Your task to perform on an android device: Open notification settings Image 0: 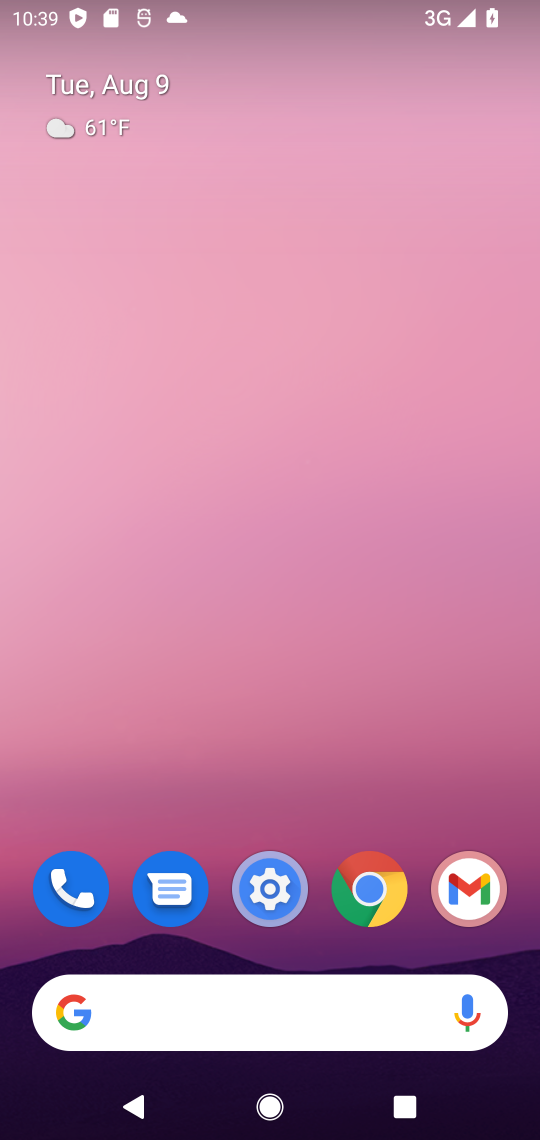
Step 0: drag from (269, 977) to (267, 219)
Your task to perform on an android device: Open notification settings Image 1: 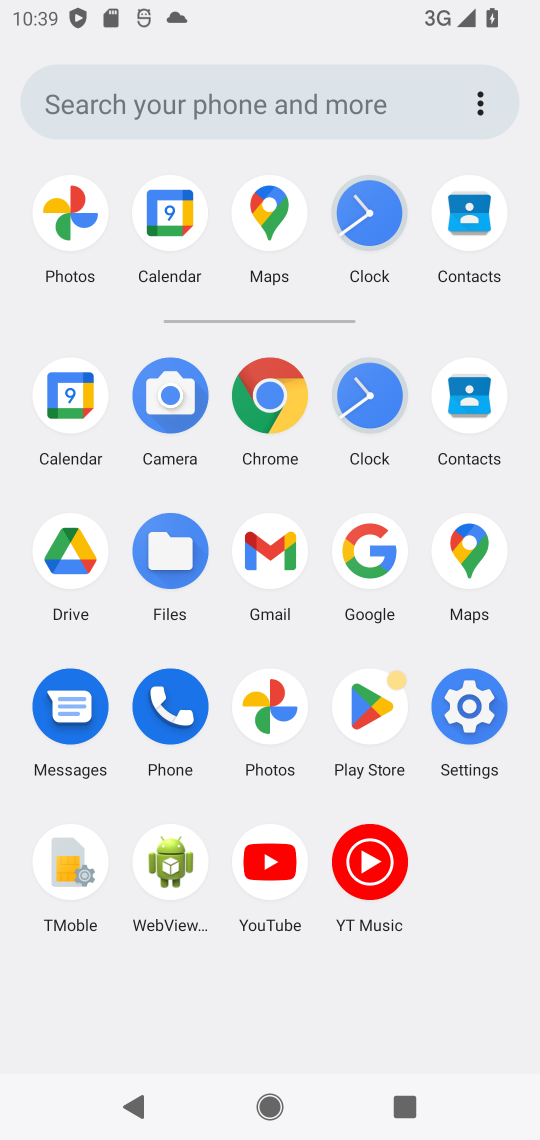
Step 1: click (474, 724)
Your task to perform on an android device: Open notification settings Image 2: 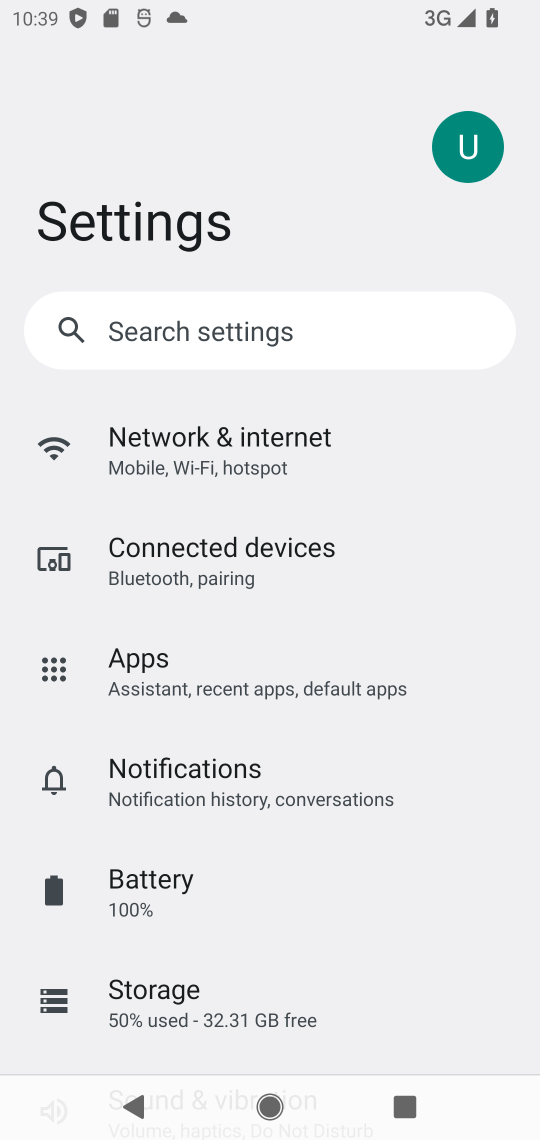
Step 2: click (253, 778)
Your task to perform on an android device: Open notification settings Image 3: 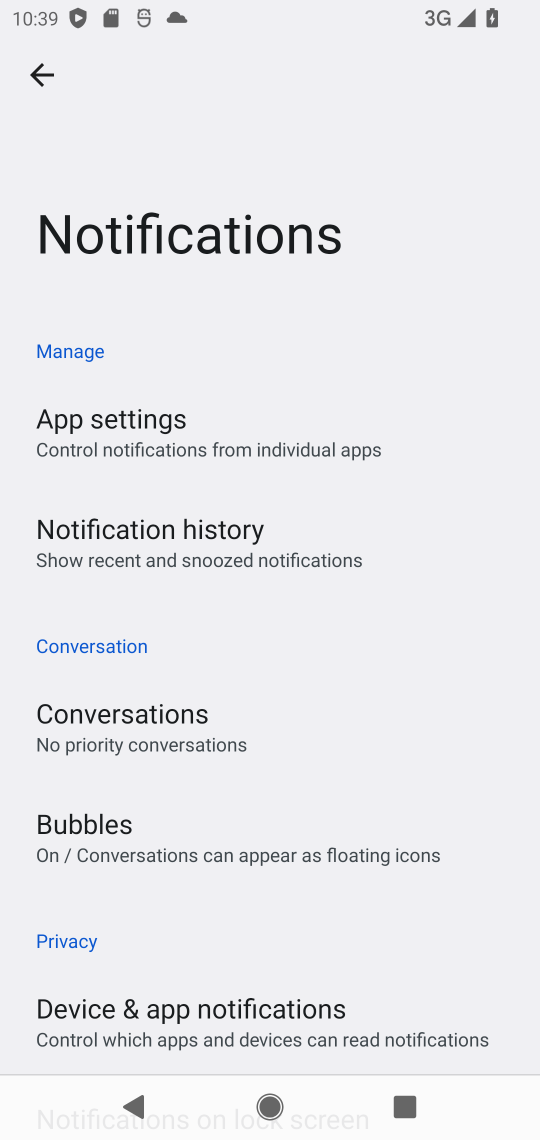
Step 3: drag from (254, 902) to (242, 282)
Your task to perform on an android device: Open notification settings Image 4: 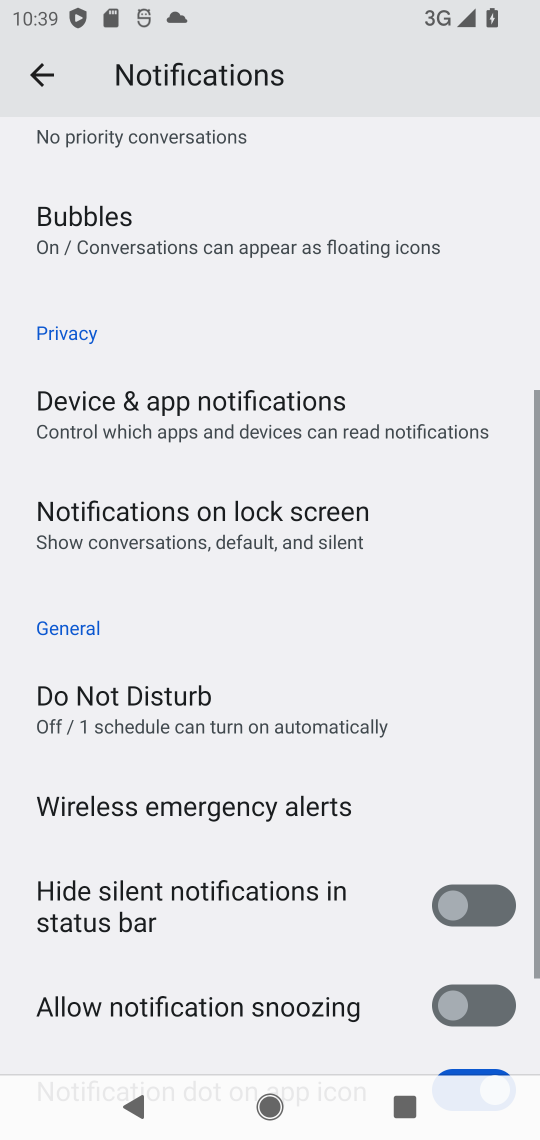
Step 4: drag from (270, 944) to (235, 265)
Your task to perform on an android device: Open notification settings Image 5: 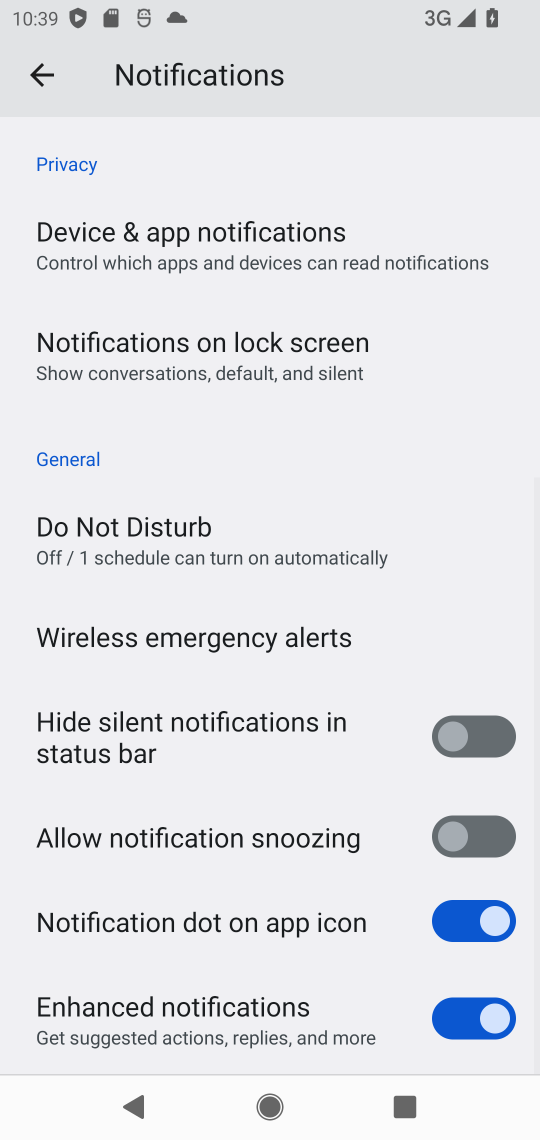
Step 5: click (280, 933)
Your task to perform on an android device: Open notification settings Image 6: 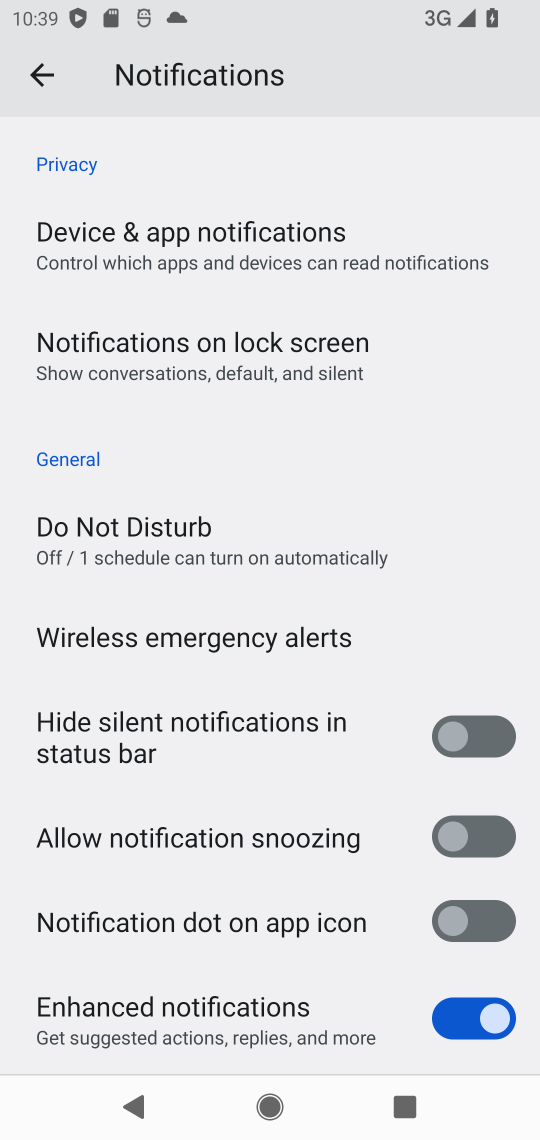
Step 6: task complete